Your task to perform on an android device: add a contact Image 0: 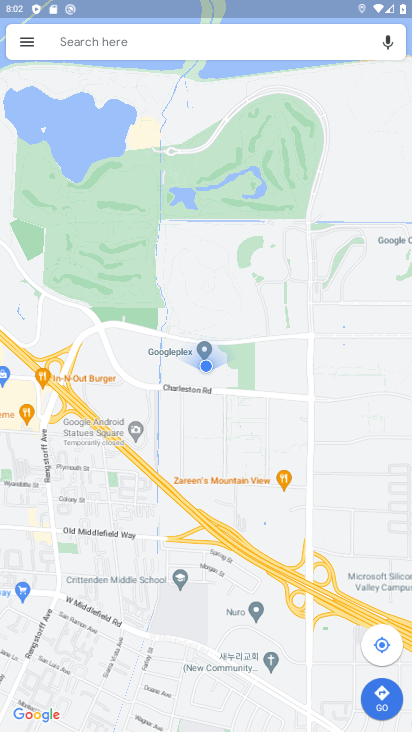
Step 0: press back button
Your task to perform on an android device: add a contact Image 1: 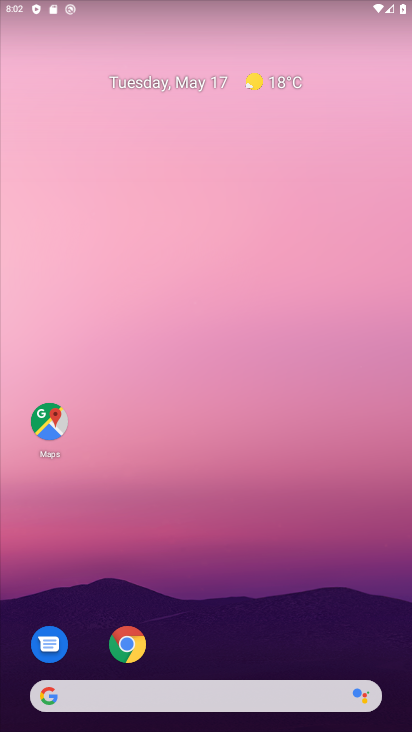
Step 1: drag from (292, 609) to (290, 86)
Your task to perform on an android device: add a contact Image 2: 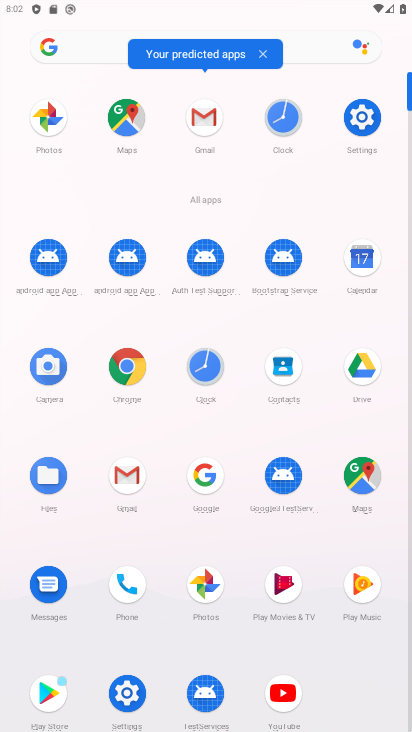
Step 2: click (288, 370)
Your task to perform on an android device: add a contact Image 3: 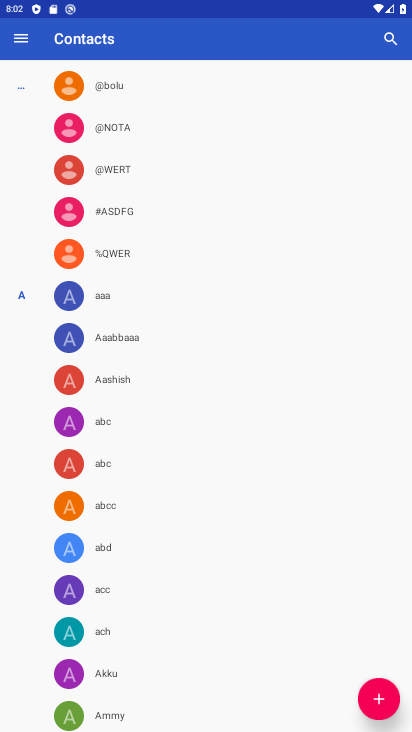
Step 3: click (371, 707)
Your task to perform on an android device: add a contact Image 4: 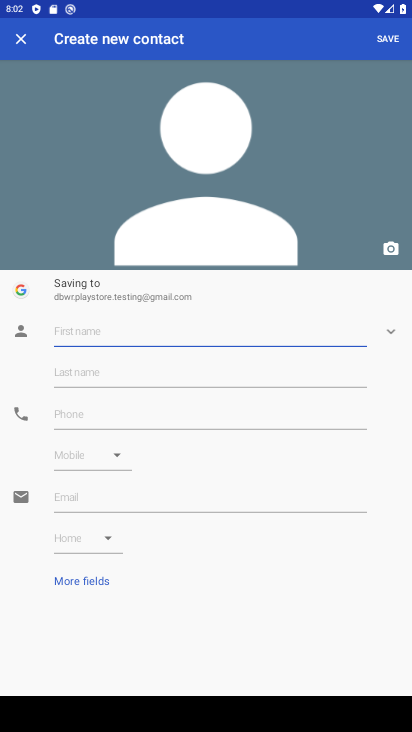
Step 4: click (64, 326)
Your task to perform on an android device: add a contact Image 5: 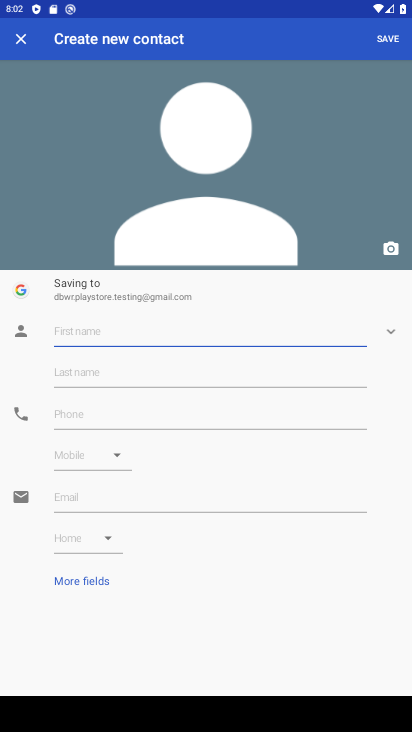
Step 5: type "fbgb"
Your task to perform on an android device: add a contact Image 6: 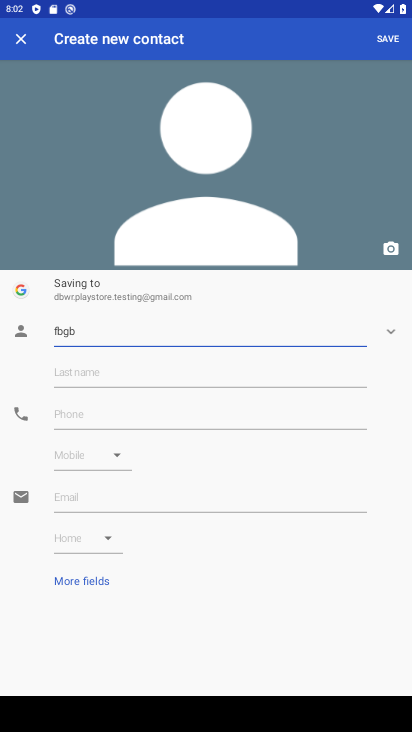
Step 6: click (71, 402)
Your task to perform on an android device: add a contact Image 7: 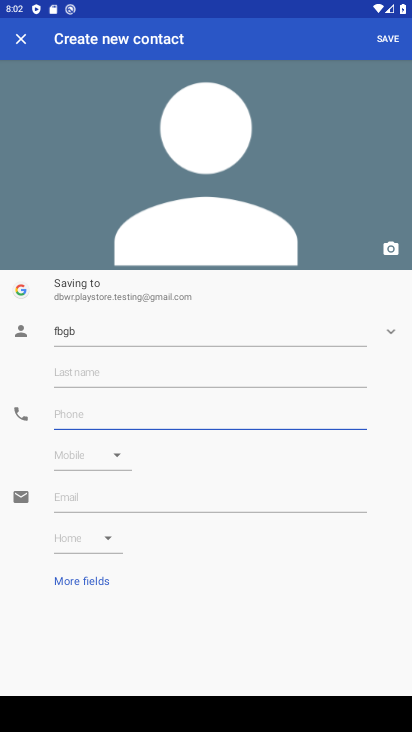
Step 7: type "6787"
Your task to perform on an android device: add a contact Image 8: 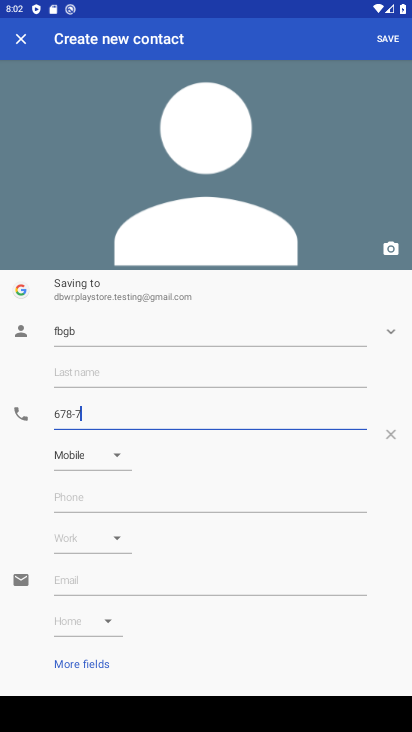
Step 8: click (385, 39)
Your task to perform on an android device: add a contact Image 9: 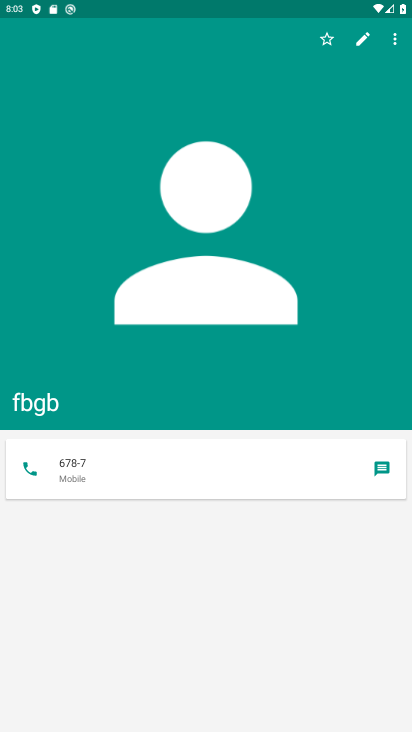
Step 9: task complete